Your task to perform on an android device: choose inbox layout in the gmail app Image 0: 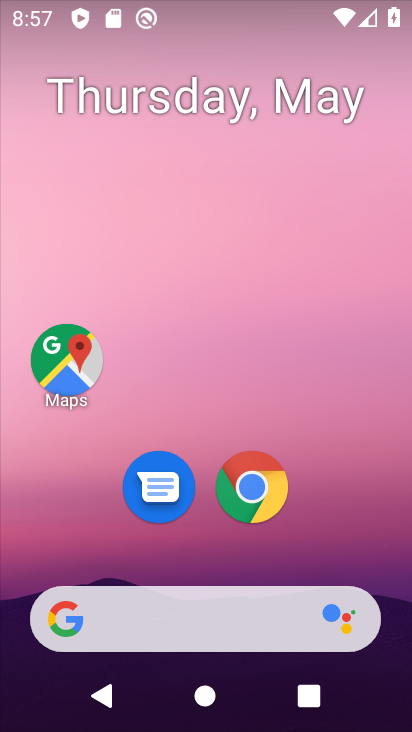
Step 0: drag from (192, 360) to (236, 143)
Your task to perform on an android device: choose inbox layout in the gmail app Image 1: 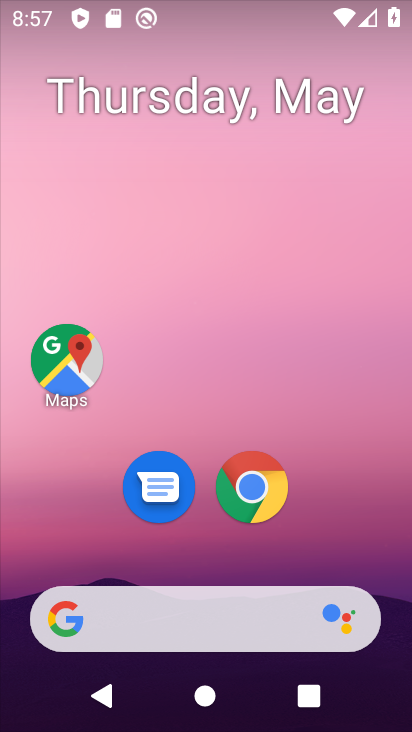
Step 1: drag from (177, 509) to (233, 161)
Your task to perform on an android device: choose inbox layout in the gmail app Image 2: 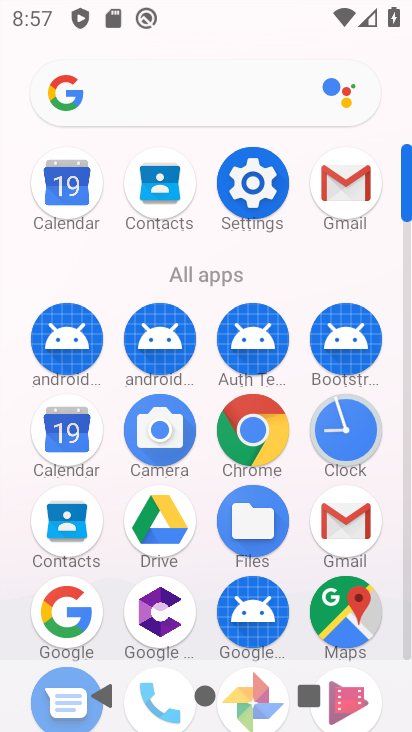
Step 2: click (342, 184)
Your task to perform on an android device: choose inbox layout in the gmail app Image 3: 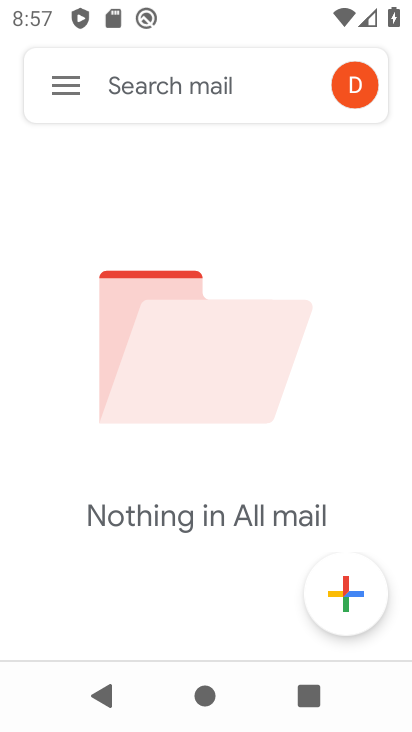
Step 3: click (71, 83)
Your task to perform on an android device: choose inbox layout in the gmail app Image 4: 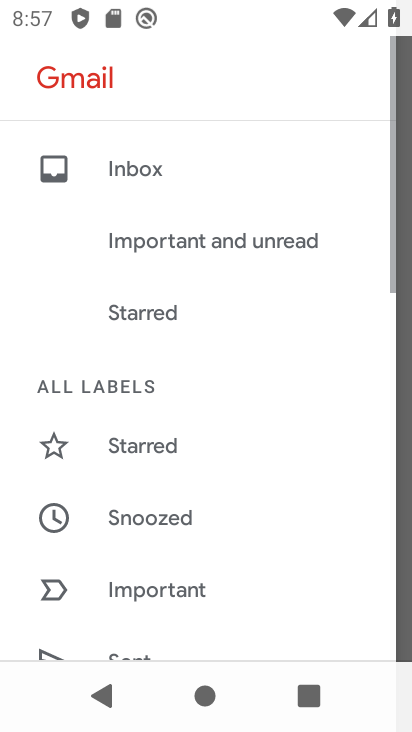
Step 4: drag from (152, 614) to (195, 131)
Your task to perform on an android device: choose inbox layout in the gmail app Image 5: 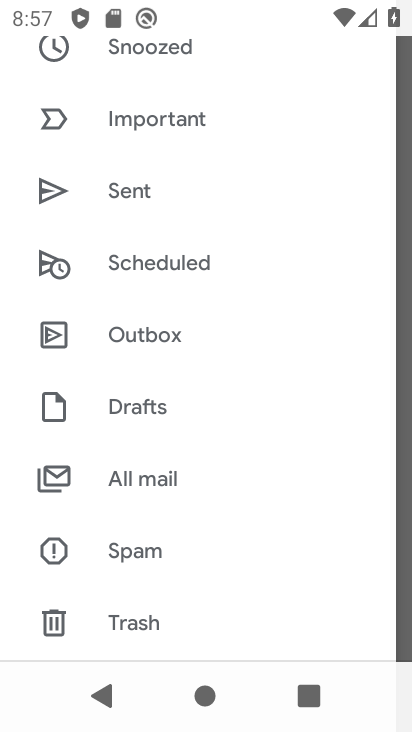
Step 5: drag from (197, 613) to (278, 46)
Your task to perform on an android device: choose inbox layout in the gmail app Image 6: 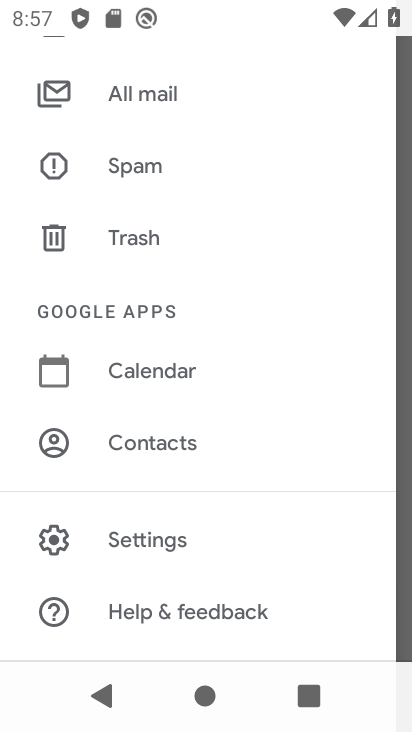
Step 6: click (160, 527)
Your task to perform on an android device: choose inbox layout in the gmail app Image 7: 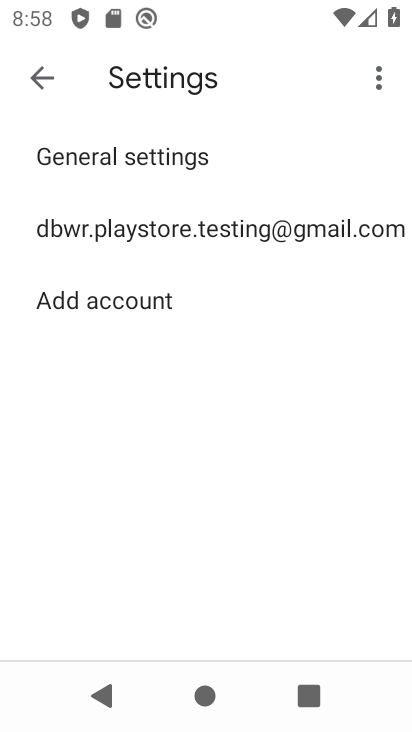
Step 7: click (137, 234)
Your task to perform on an android device: choose inbox layout in the gmail app Image 8: 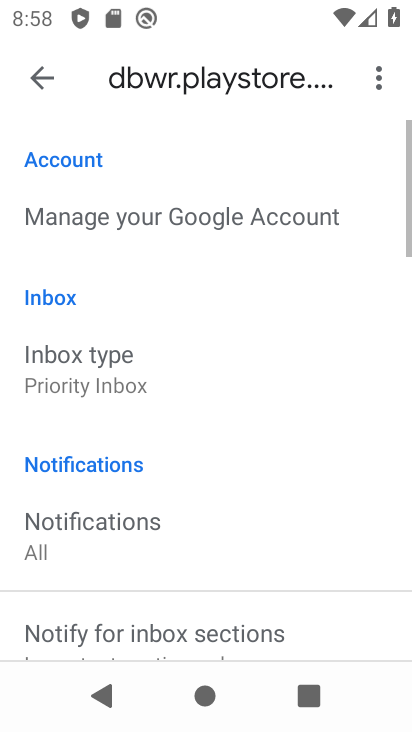
Step 8: click (119, 362)
Your task to perform on an android device: choose inbox layout in the gmail app Image 9: 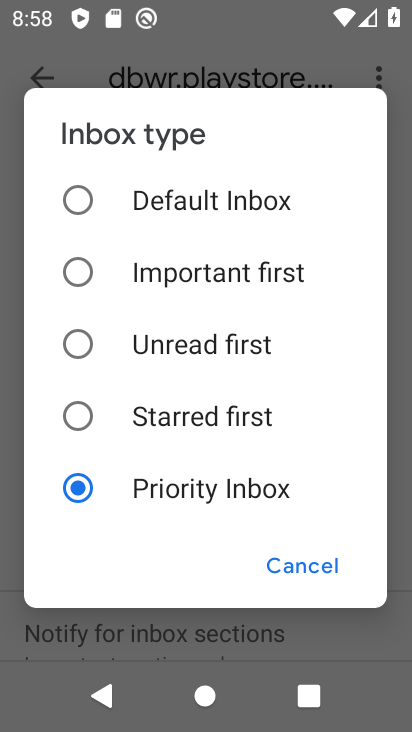
Step 9: click (69, 188)
Your task to perform on an android device: choose inbox layout in the gmail app Image 10: 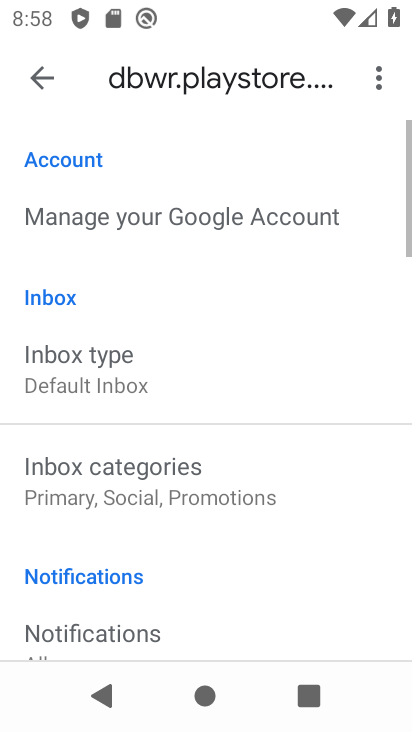
Step 10: task complete